Your task to perform on an android device: Search for Mexican restaurants on Maps Image 0: 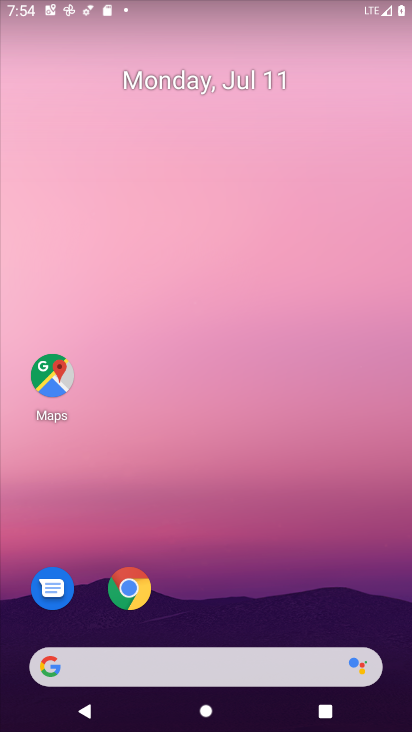
Step 0: drag from (265, 614) to (190, 0)
Your task to perform on an android device: Search for Mexican restaurants on Maps Image 1: 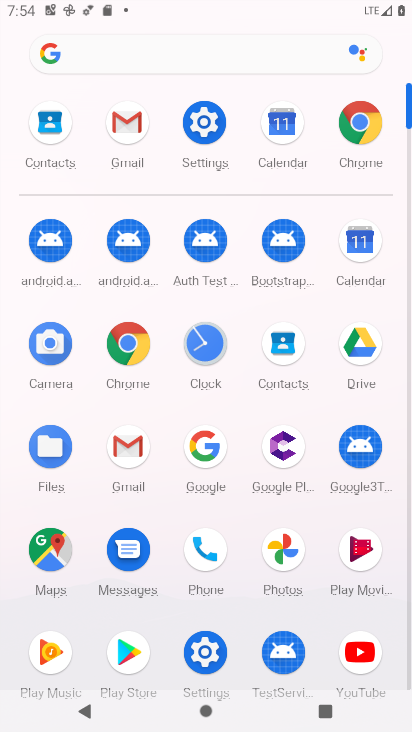
Step 1: click (29, 547)
Your task to perform on an android device: Search for Mexican restaurants on Maps Image 2: 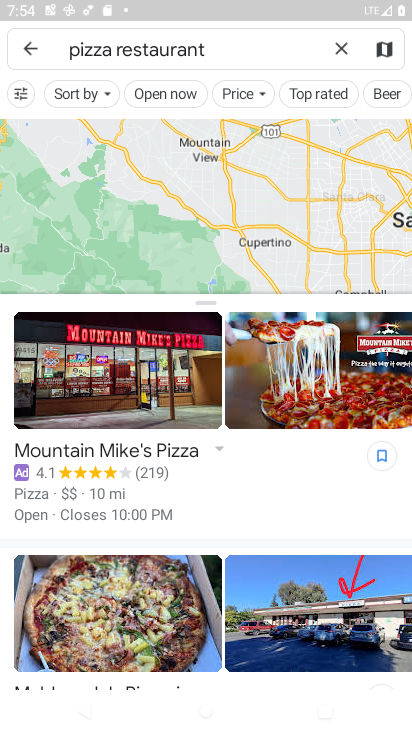
Step 2: click (343, 39)
Your task to perform on an android device: Search for Mexican restaurants on Maps Image 3: 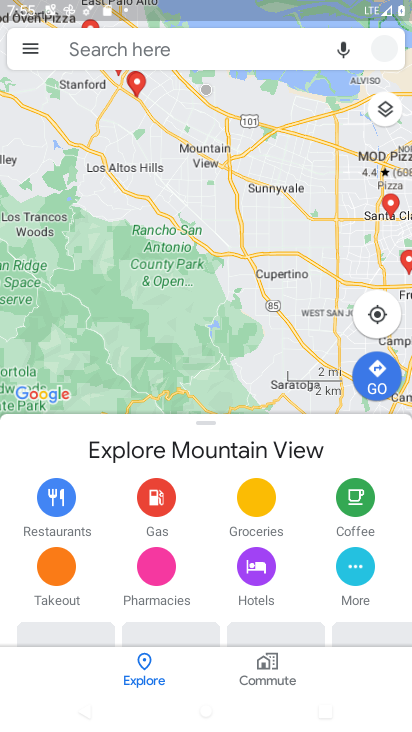
Step 3: click (128, 50)
Your task to perform on an android device: Search for Mexican restaurants on Maps Image 4: 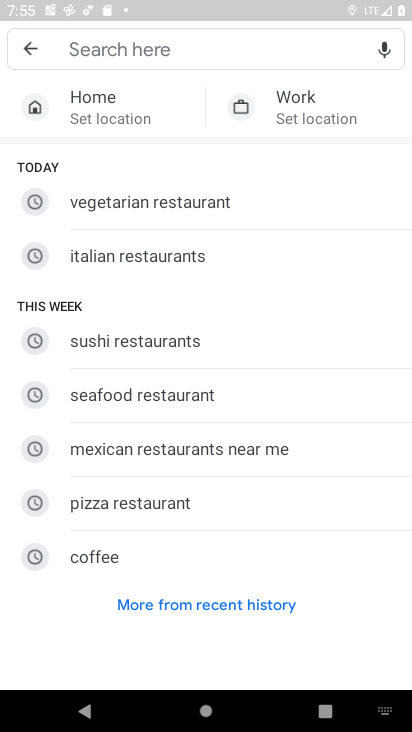
Step 4: click (119, 455)
Your task to perform on an android device: Search for Mexican restaurants on Maps Image 5: 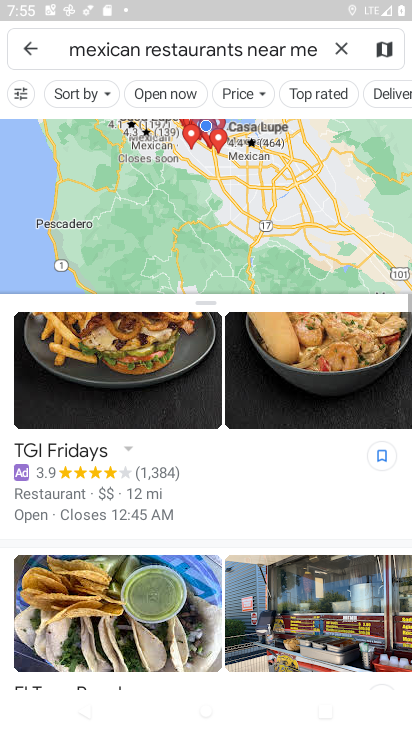
Step 5: task complete